Your task to perform on an android device: change the clock display to digital Image 0: 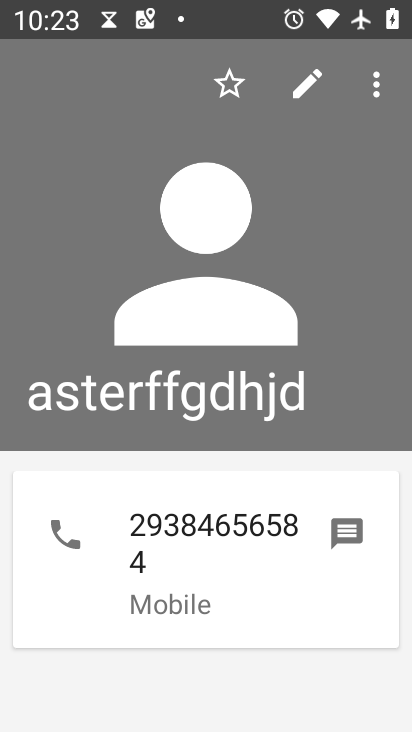
Step 0: press home button
Your task to perform on an android device: change the clock display to digital Image 1: 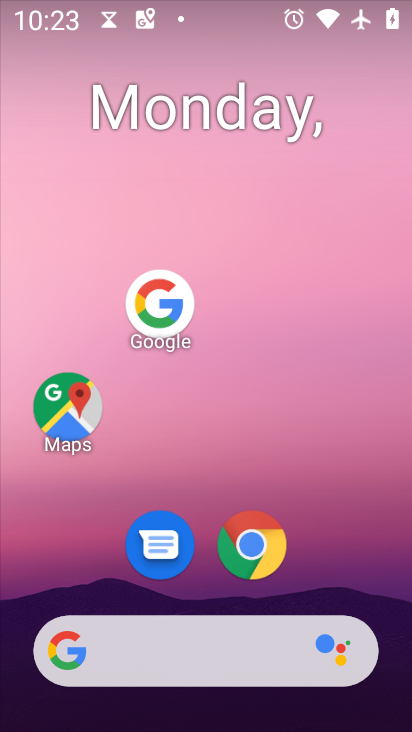
Step 1: drag from (205, 655) to (321, 107)
Your task to perform on an android device: change the clock display to digital Image 2: 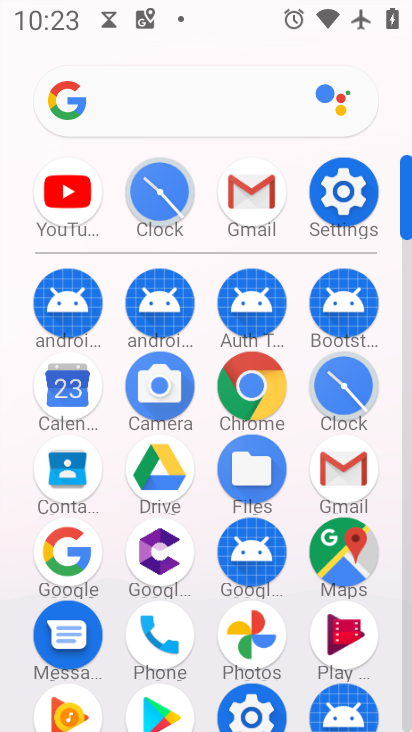
Step 2: click (336, 390)
Your task to perform on an android device: change the clock display to digital Image 3: 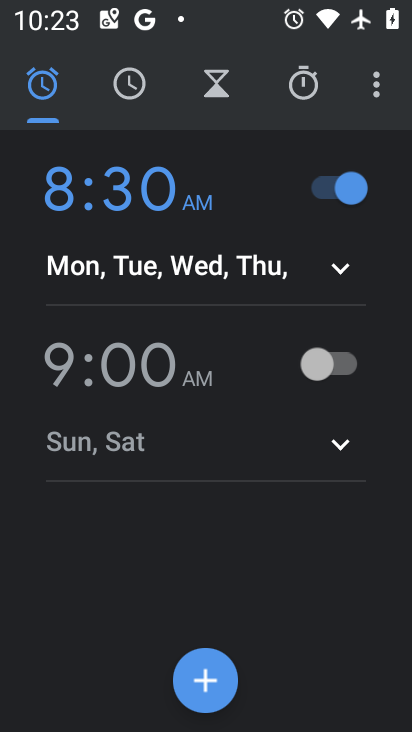
Step 3: click (379, 92)
Your task to perform on an android device: change the clock display to digital Image 4: 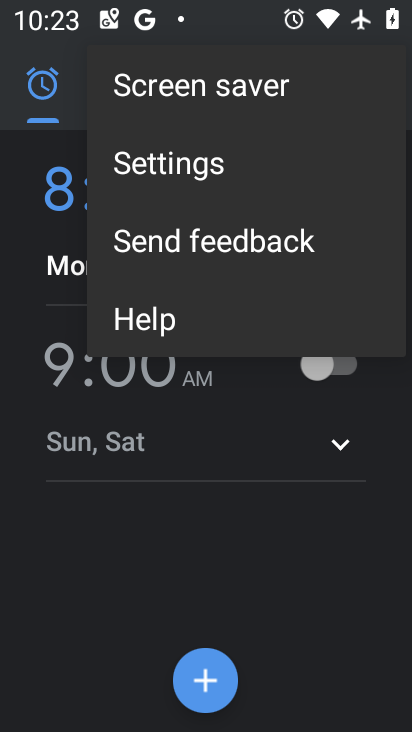
Step 4: click (207, 175)
Your task to perform on an android device: change the clock display to digital Image 5: 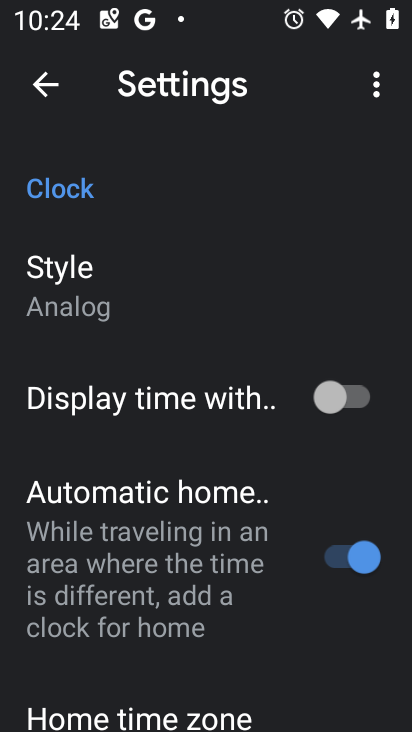
Step 5: click (73, 316)
Your task to perform on an android device: change the clock display to digital Image 6: 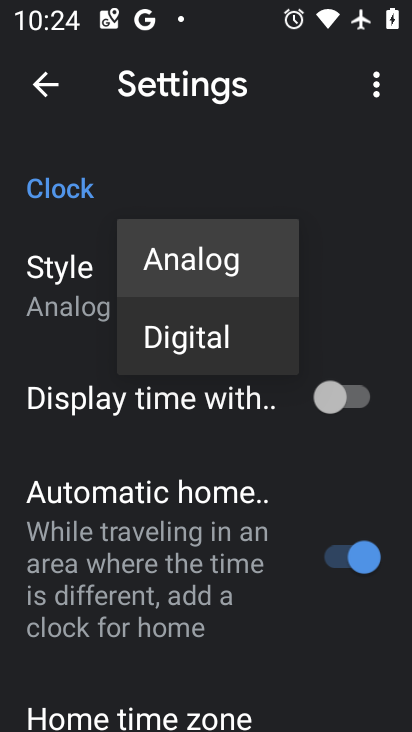
Step 6: click (168, 358)
Your task to perform on an android device: change the clock display to digital Image 7: 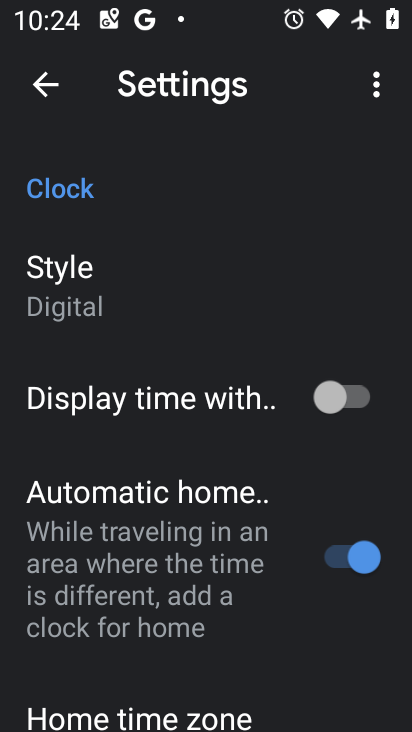
Step 7: task complete